Your task to perform on an android device: toggle priority inbox in the gmail app Image 0: 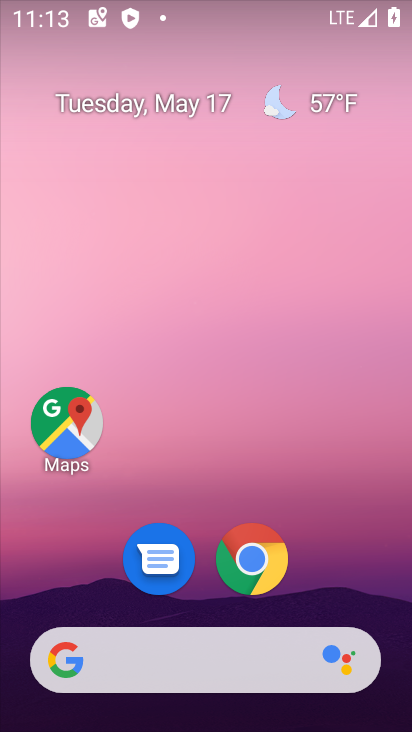
Step 0: drag from (345, 600) to (395, 180)
Your task to perform on an android device: toggle priority inbox in the gmail app Image 1: 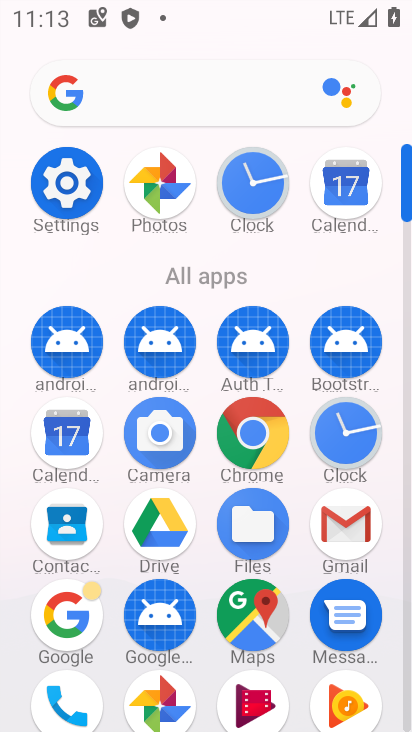
Step 1: drag from (411, 148) to (314, 388)
Your task to perform on an android device: toggle priority inbox in the gmail app Image 2: 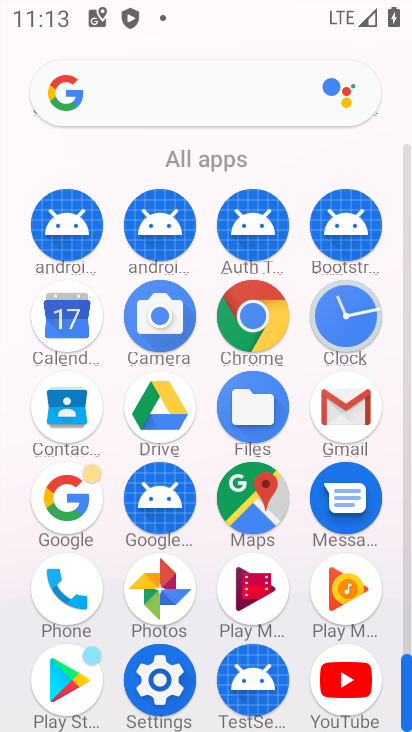
Step 2: click (338, 413)
Your task to perform on an android device: toggle priority inbox in the gmail app Image 3: 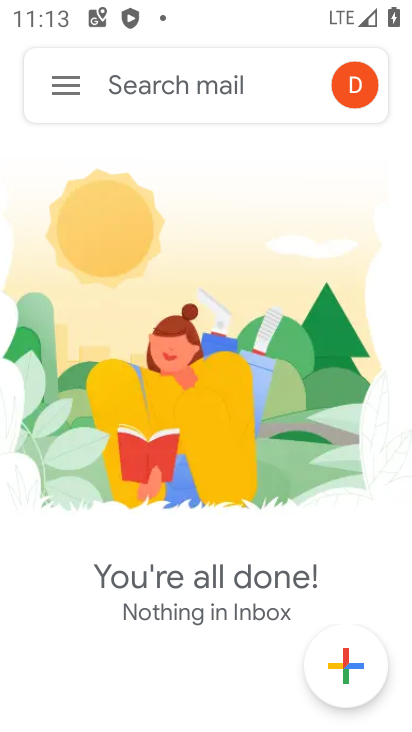
Step 3: click (90, 78)
Your task to perform on an android device: toggle priority inbox in the gmail app Image 4: 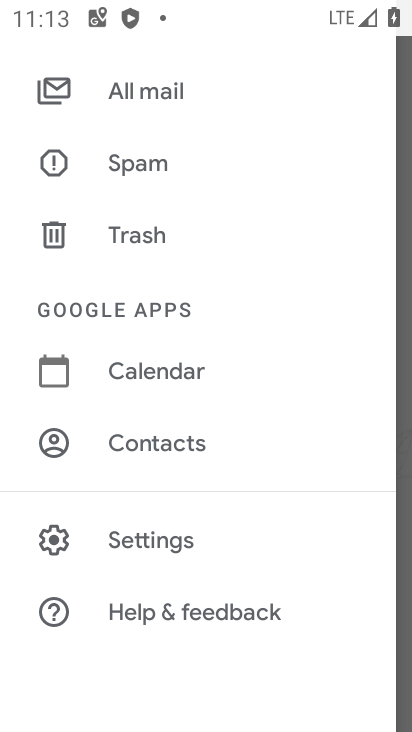
Step 4: click (271, 548)
Your task to perform on an android device: toggle priority inbox in the gmail app Image 5: 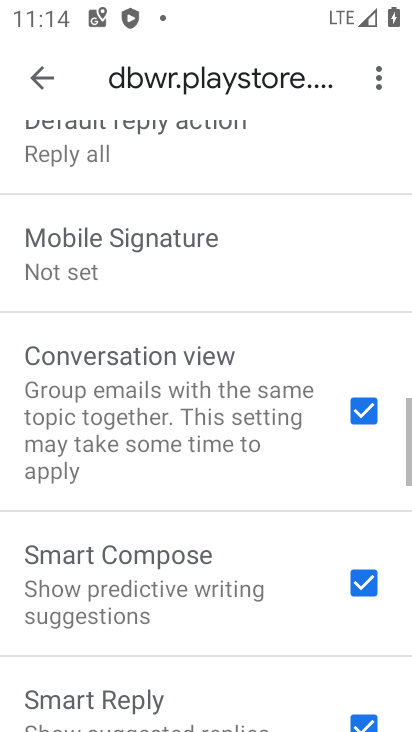
Step 5: drag from (114, 192) to (155, 712)
Your task to perform on an android device: toggle priority inbox in the gmail app Image 6: 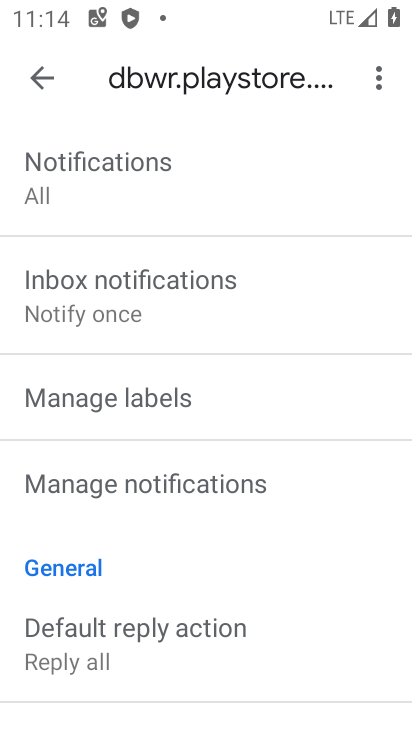
Step 6: drag from (122, 274) to (156, 718)
Your task to perform on an android device: toggle priority inbox in the gmail app Image 7: 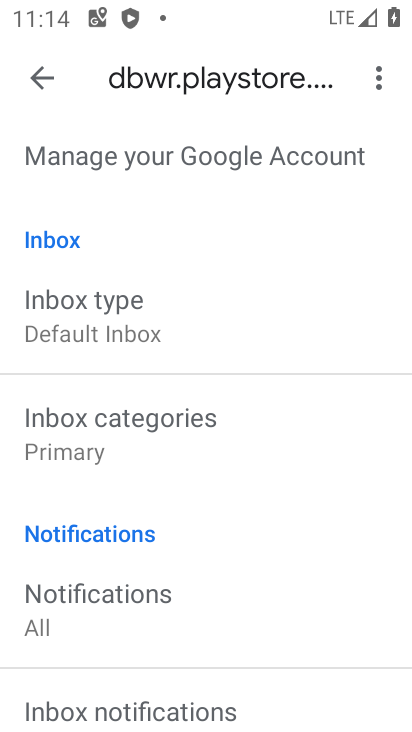
Step 7: click (123, 352)
Your task to perform on an android device: toggle priority inbox in the gmail app Image 8: 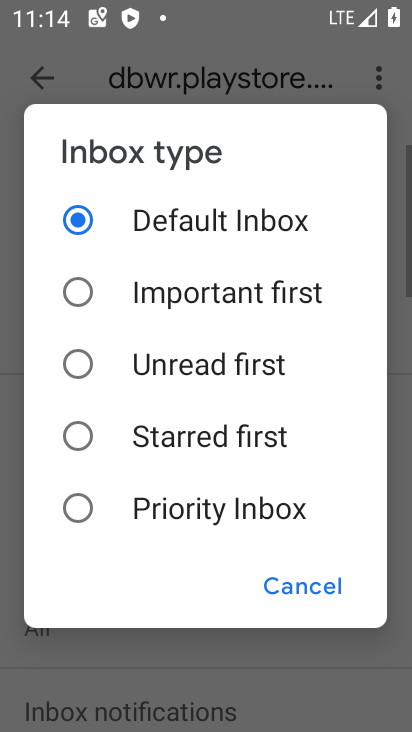
Step 8: click (159, 512)
Your task to perform on an android device: toggle priority inbox in the gmail app Image 9: 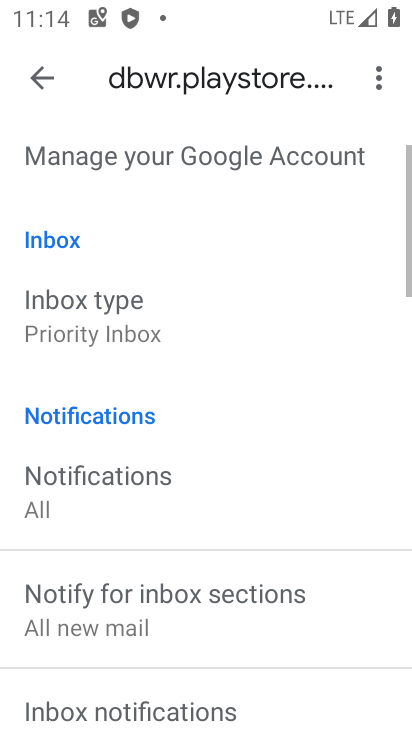
Step 9: task complete